Your task to perform on an android device: turn vacation reply on in the gmail app Image 0: 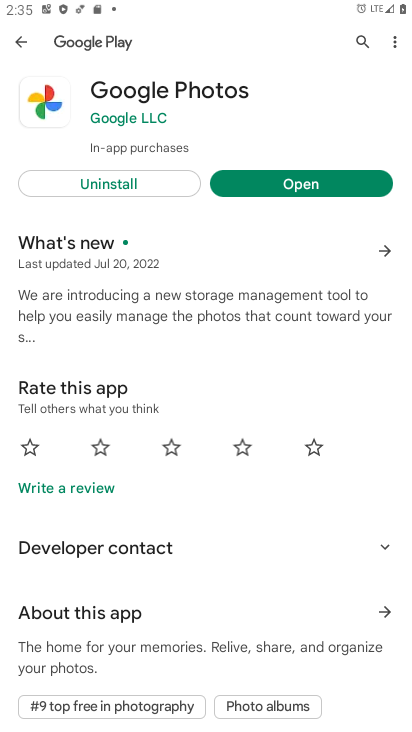
Step 0: press home button
Your task to perform on an android device: turn vacation reply on in the gmail app Image 1: 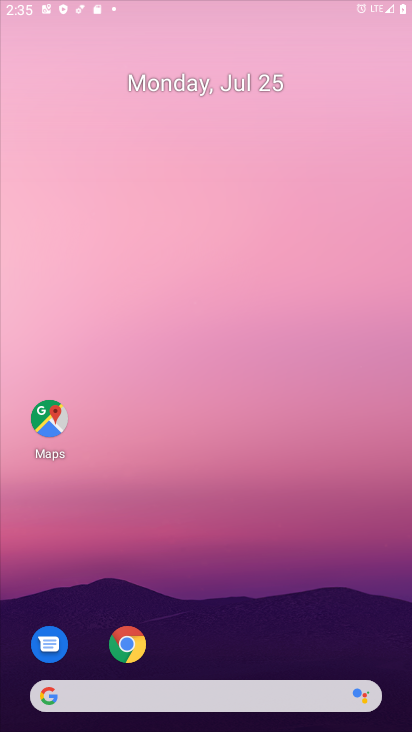
Step 1: drag from (391, 670) to (217, 10)
Your task to perform on an android device: turn vacation reply on in the gmail app Image 2: 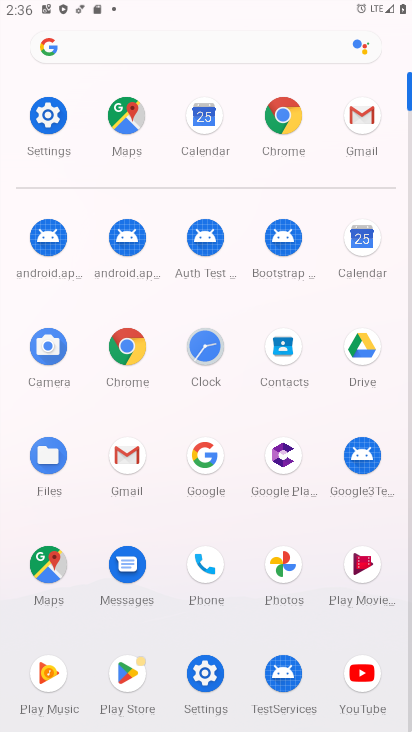
Step 2: click (130, 459)
Your task to perform on an android device: turn vacation reply on in the gmail app Image 3: 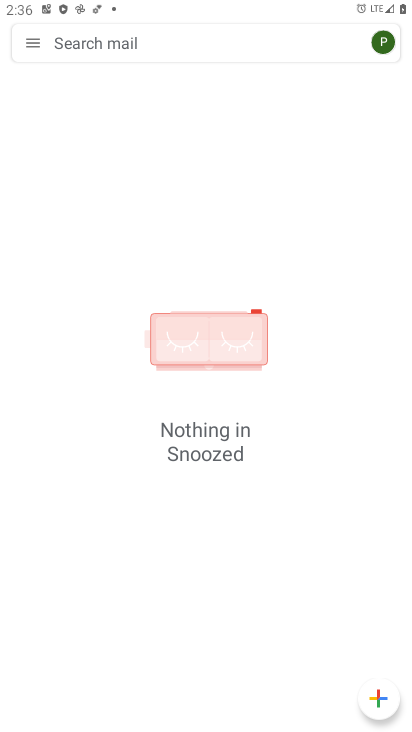
Step 3: click (37, 39)
Your task to perform on an android device: turn vacation reply on in the gmail app Image 4: 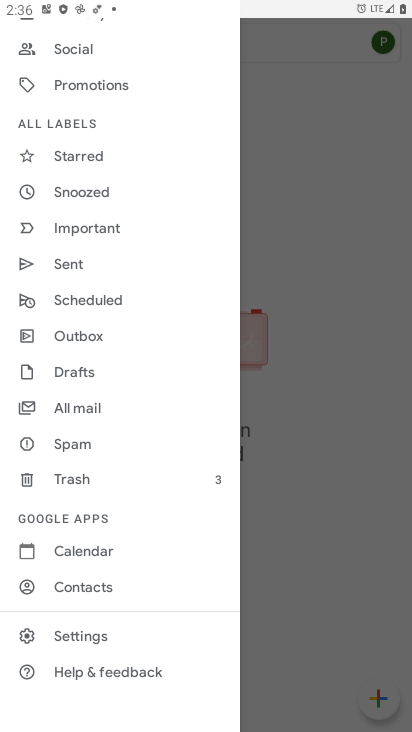
Step 4: click (87, 633)
Your task to perform on an android device: turn vacation reply on in the gmail app Image 5: 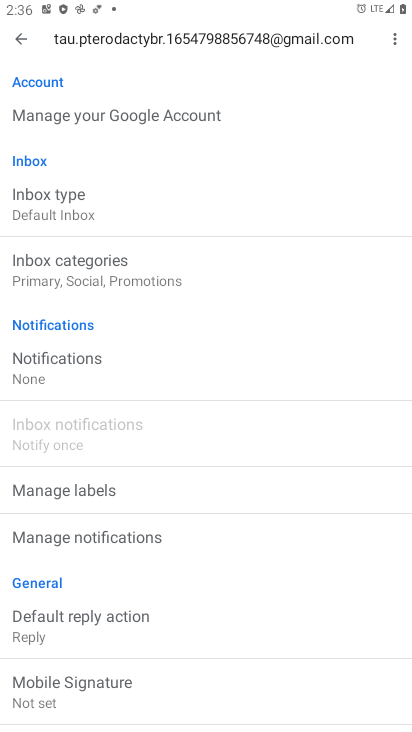
Step 5: drag from (123, 679) to (167, 2)
Your task to perform on an android device: turn vacation reply on in the gmail app Image 6: 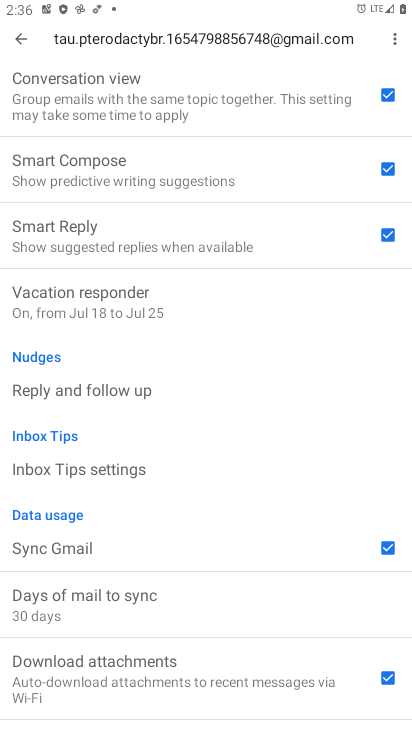
Step 6: click (56, 304)
Your task to perform on an android device: turn vacation reply on in the gmail app Image 7: 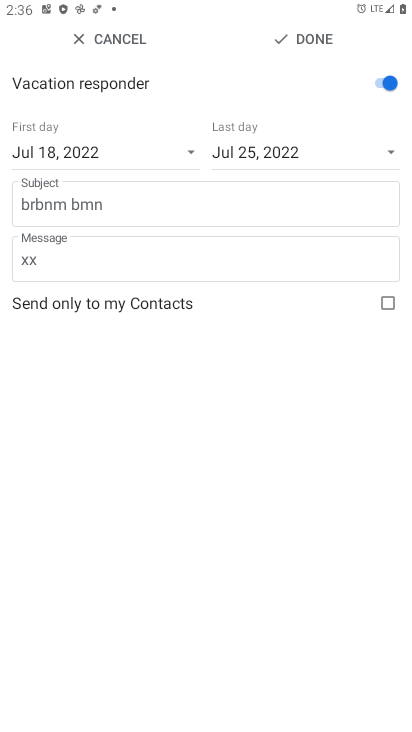
Step 7: task complete